Your task to perform on an android device: When is my next meeting? Image 0: 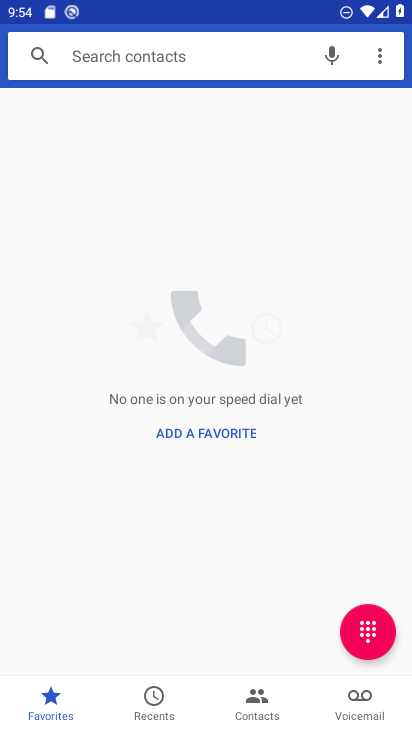
Step 0: press home button
Your task to perform on an android device: When is my next meeting? Image 1: 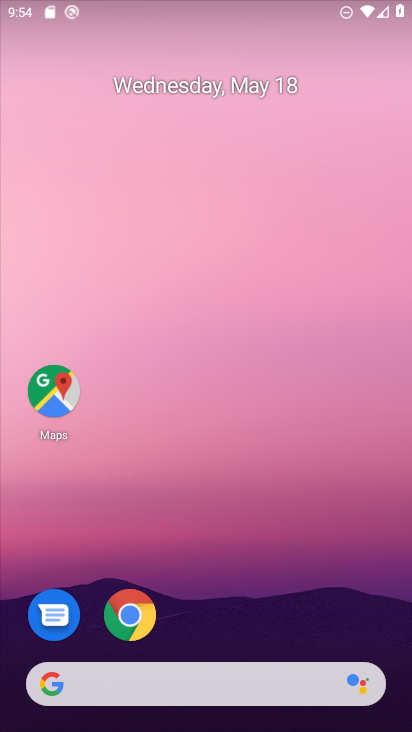
Step 1: drag from (245, 582) to (244, 118)
Your task to perform on an android device: When is my next meeting? Image 2: 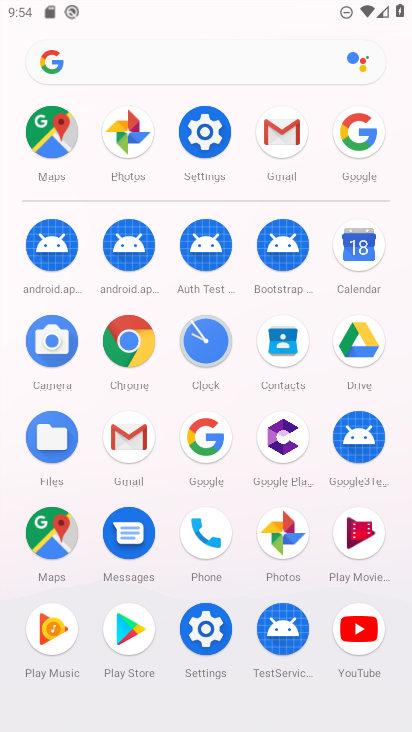
Step 2: click (354, 261)
Your task to perform on an android device: When is my next meeting? Image 3: 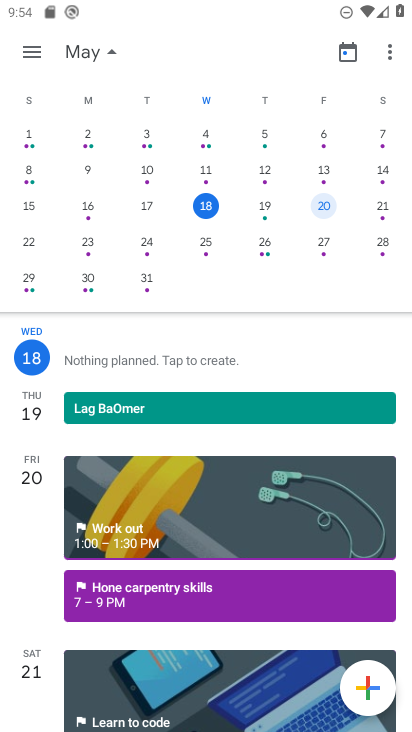
Step 3: click (273, 206)
Your task to perform on an android device: When is my next meeting? Image 4: 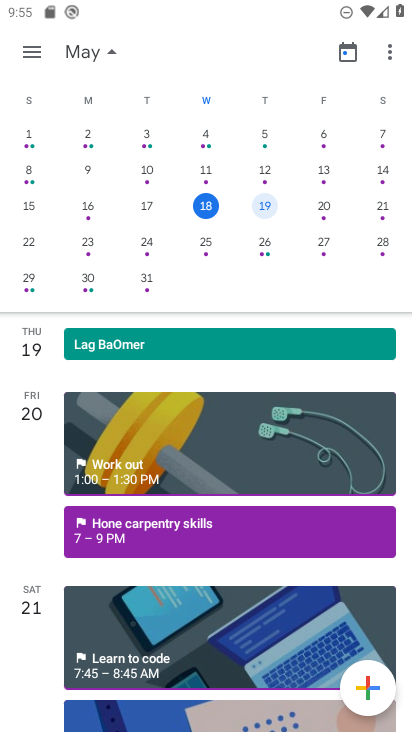
Step 4: task complete